Your task to perform on an android device: turn notification dots off Image 0: 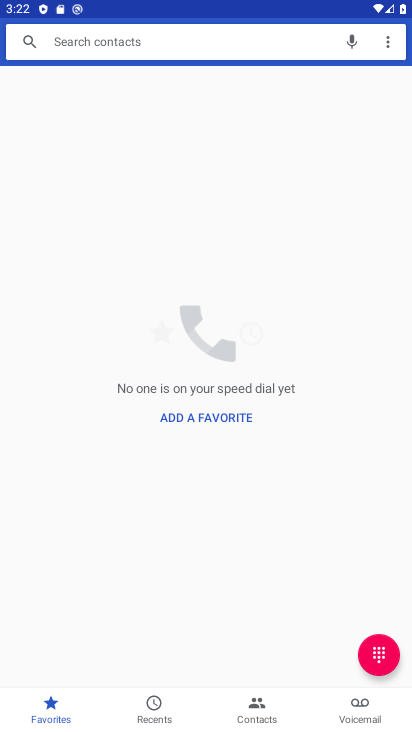
Step 0: press home button
Your task to perform on an android device: turn notification dots off Image 1: 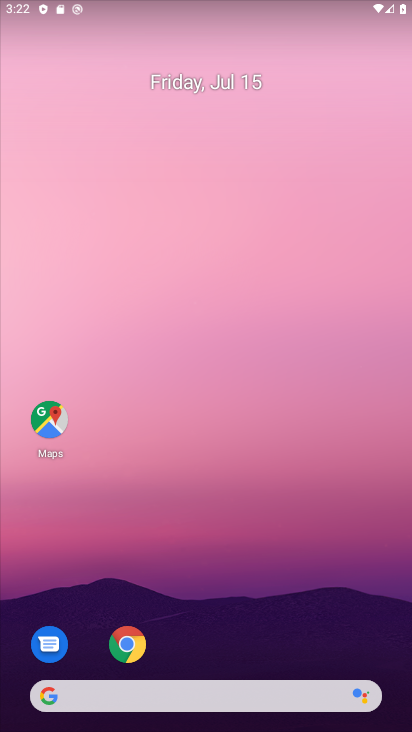
Step 1: drag from (266, 626) to (212, 15)
Your task to perform on an android device: turn notification dots off Image 2: 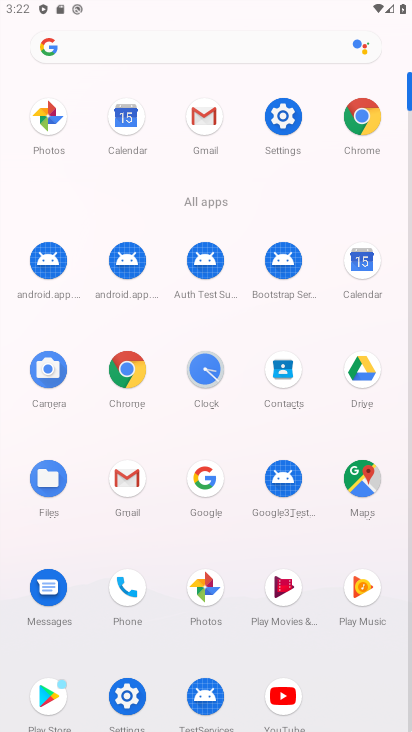
Step 2: click (282, 105)
Your task to perform on an android device: turn notification dots off Image 3: 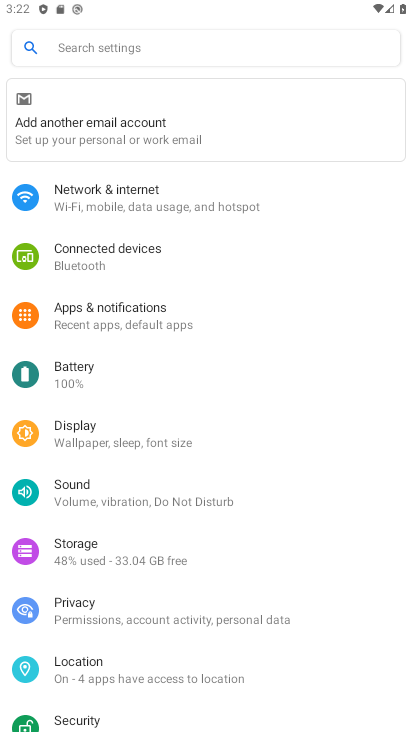
Step 3: click (225, 325)
Your task to perform on an android device: turn notification dots off Image 4: 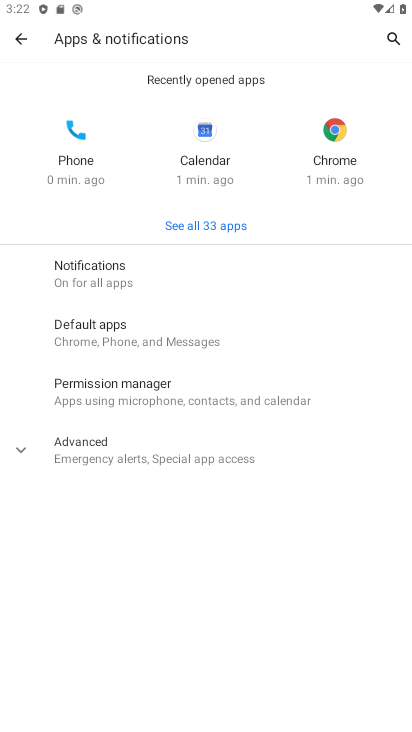
Step 4: click (201, 282)
Your task to perform on an android device: turn notification dots off Image 5: 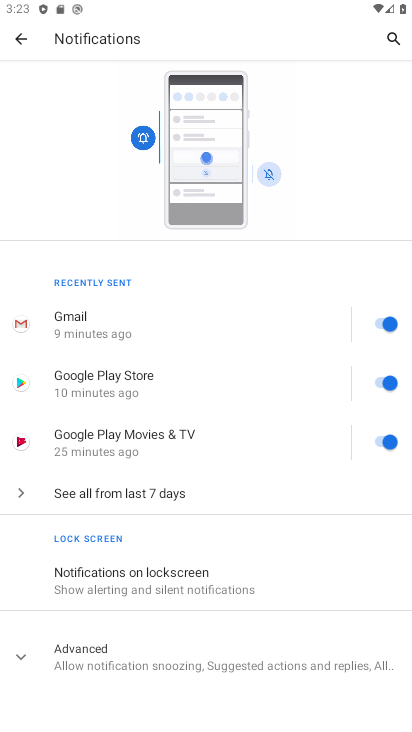
Step 5: click (261, 662)
Your task to perform on an android device: turn notification dots off Image 6: 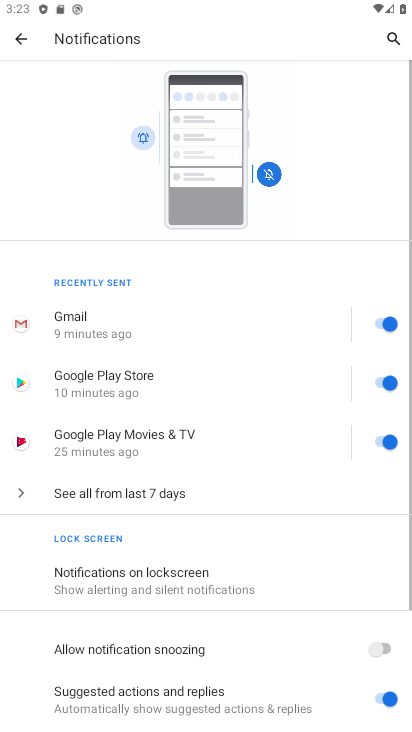
Step 6: drag from (261, 662) to (255, 294)
Your task to perform on an android device: turn notification dots off Image 7: 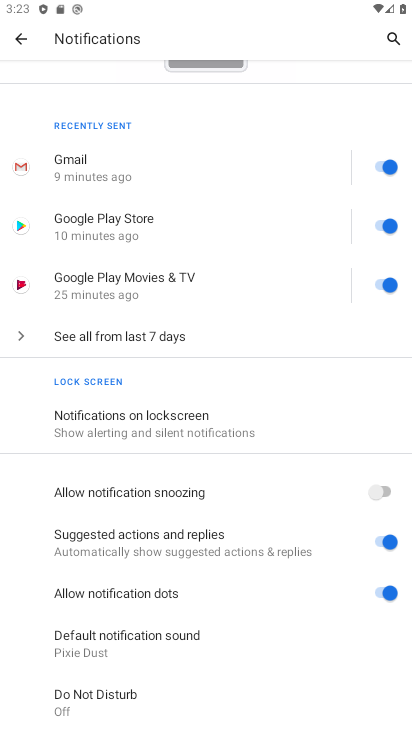
Step 7: click (376, 590)
Your task to perform on an android device: turn notification dots off Image 8: 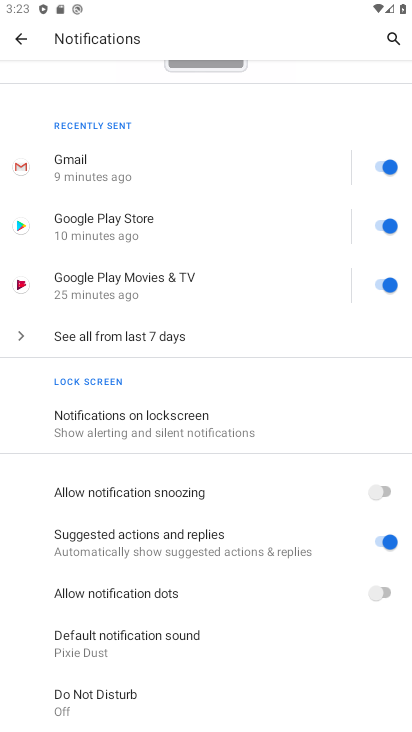
Step 8: task complete